Your task to perform on an android device: toggle priority inbox in the gmail app Image 0: 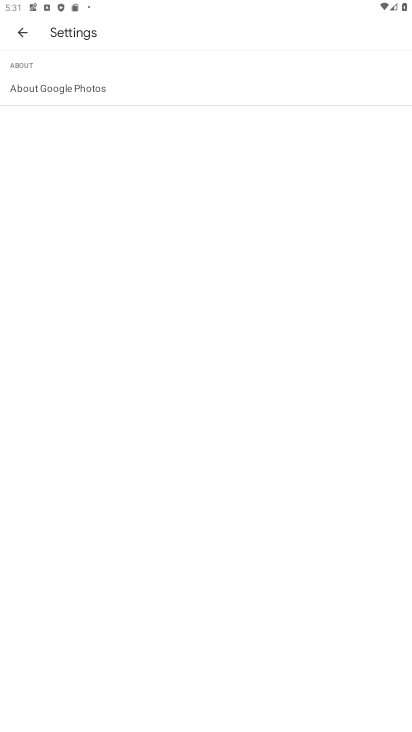
Step 0: press home button
Your task to perform on an android device: toggle priority inbox in the gmail app Image 1: 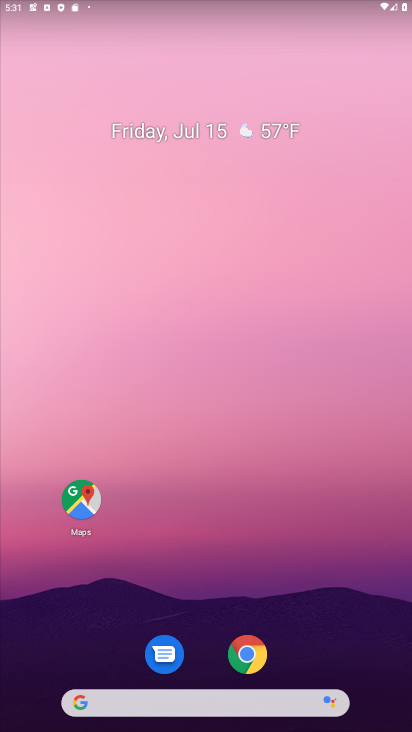
Step 1: drag from (196, 329) to (220, 38)
Your task to perform on an android device: toggle priority inbox in the gmail app Image 2: 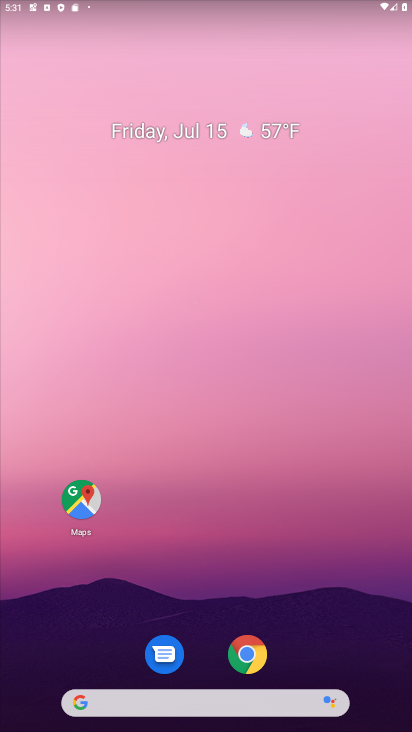
Step 2: drag from (192, 654) to (198, 65)
Your task to perform on an android device: toggle priority inbox in the gmail app Image 3: 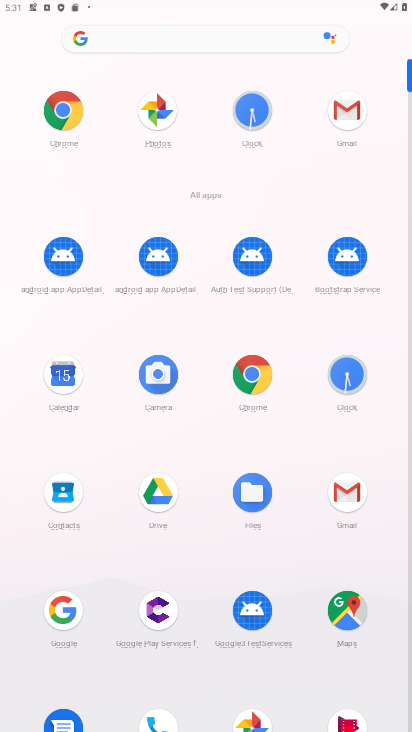
Step 3: click (348, 112)
Your task to perform on an android device: toggle priority inbox in the gmail app Image 4: 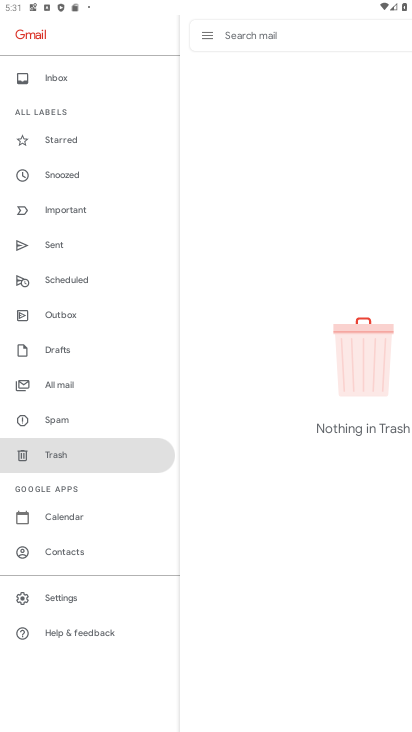
Step 4: click (72, 604)
Your task to perform on an android device: toggle priority inbox in the gmail app Image 5: 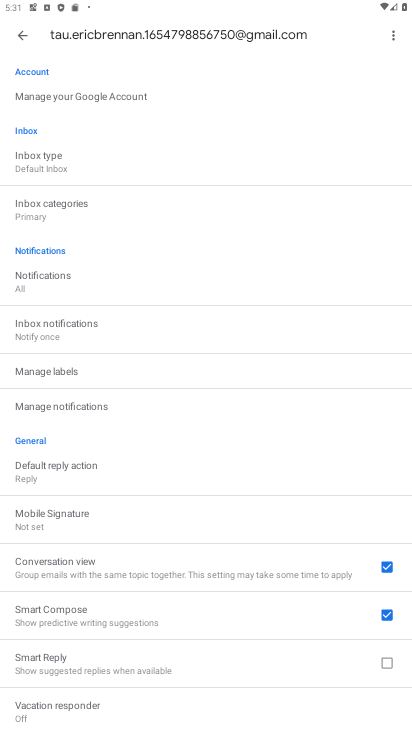
Step 5: click (57, 168)
Your task to perform on an android device: toggle priority inbox in the gmail app Image 6: 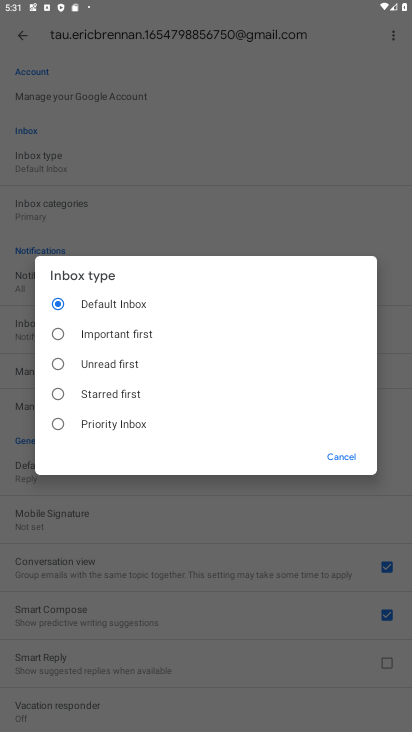
Step 6: click (97, 420)
Your task to perform on an android device: toggle priority inbox in the gmail app Image 7: 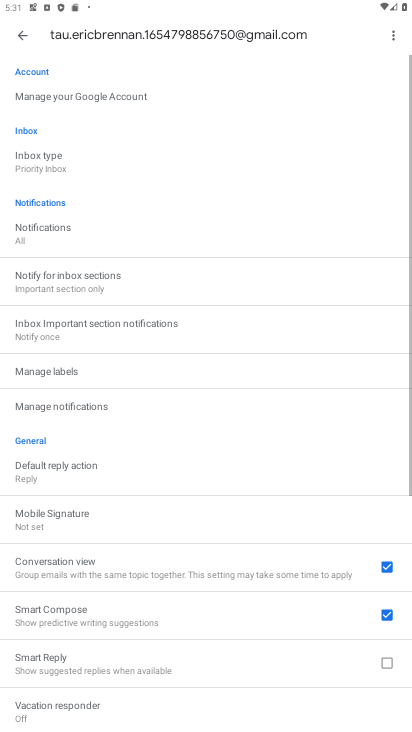
Step 7: task complete